Your task to perform on an android device: change keyboard looks Image 0: 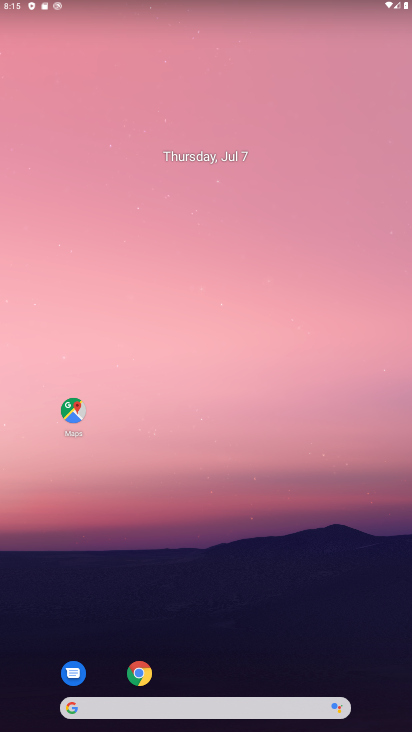
Step 0: drag from (203, 681) to (404, 286)
Your task to perform on an android device: change keyboard looks Image 1: 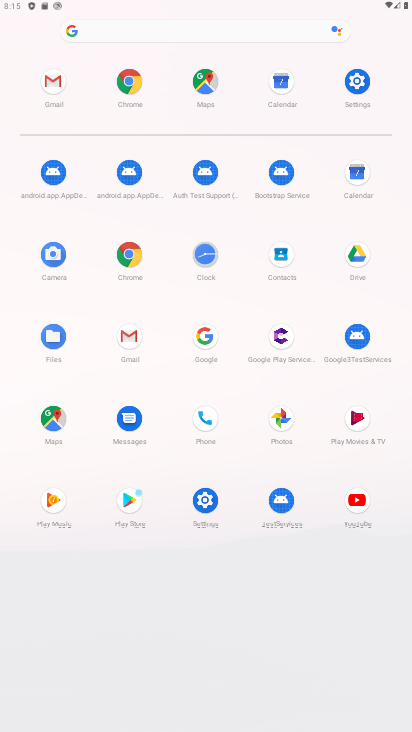
Step 1: click (207, 514)
Your task to perform on an android device: change keyboard looks Image 2: 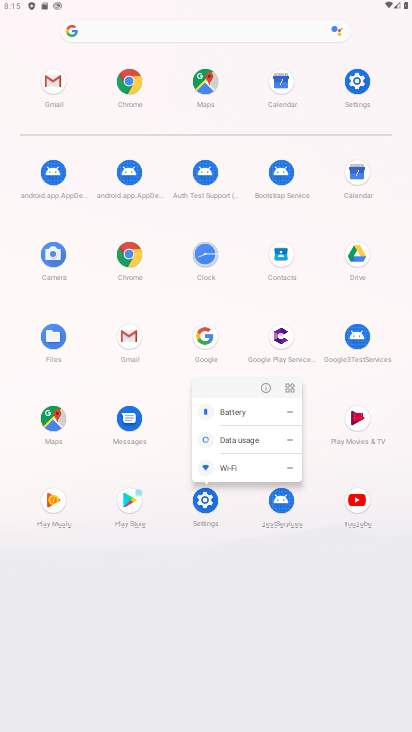
Step 2: click (207, 505)
Your task to perform on an android device: change keyboard looks Image 3: 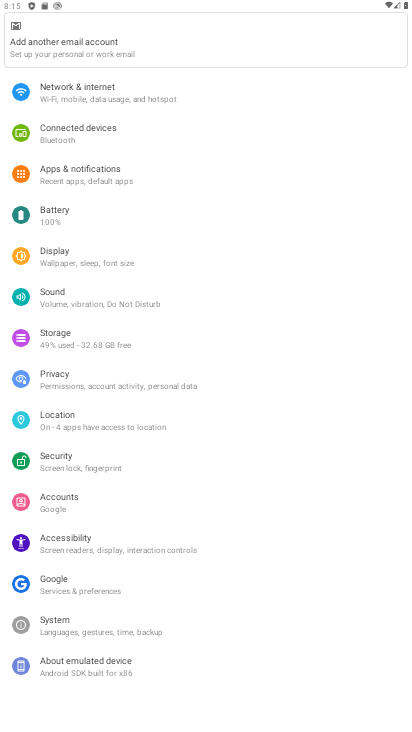
Step 3: click (95, 625)
Your task to perform on an android device: change keyboard looks Image 4: 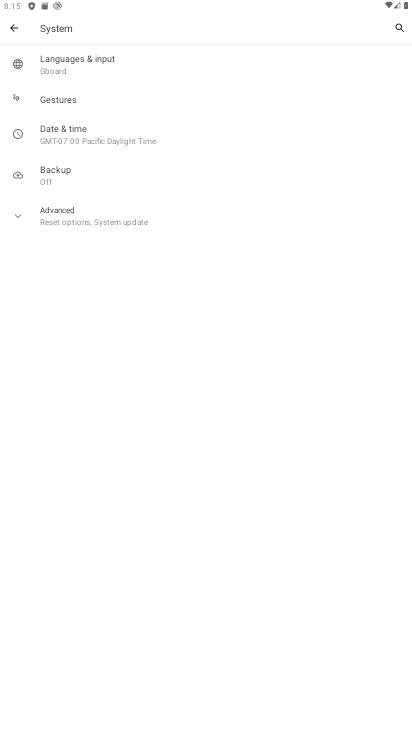
Step 4: click (55, 65)
Your task to perform on an android device: change keyboard looks Image 5: 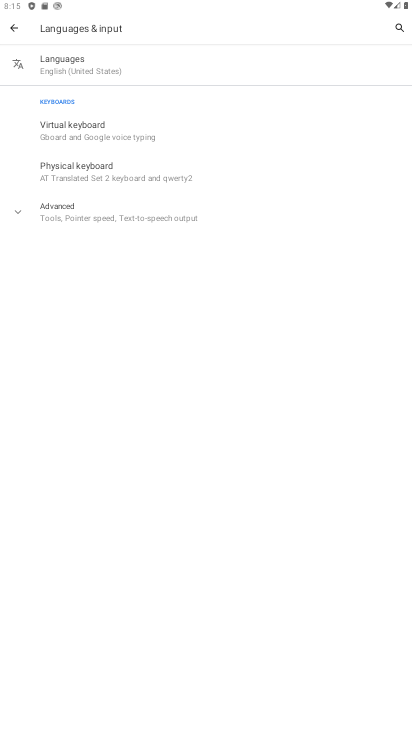
Step 5: click (88, 123)
Your task to perform on an android device: change keyboard looks Image 6: 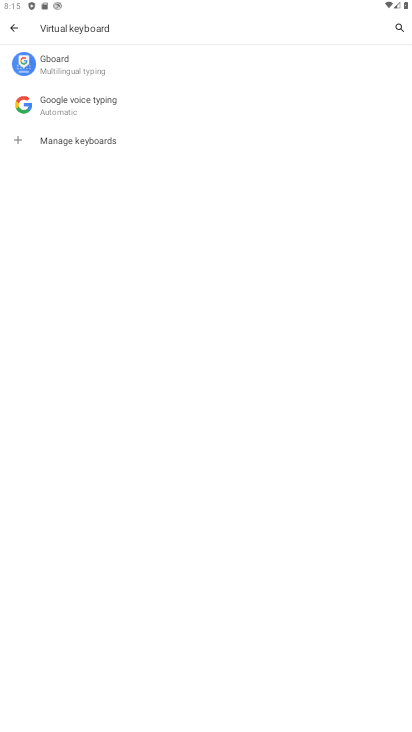
Step 6: click (70, 67)
Your task to perform on an android device: change keyboard looks Image 7: 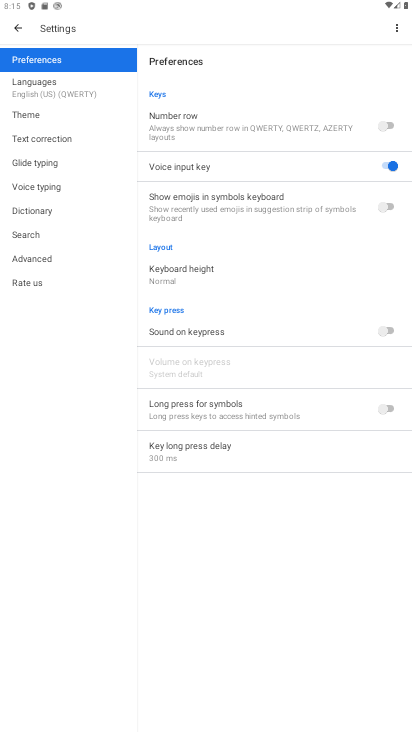
Step 7: click (27, 111)
Your task to perform on an android device: change keyboard looks Image 8: 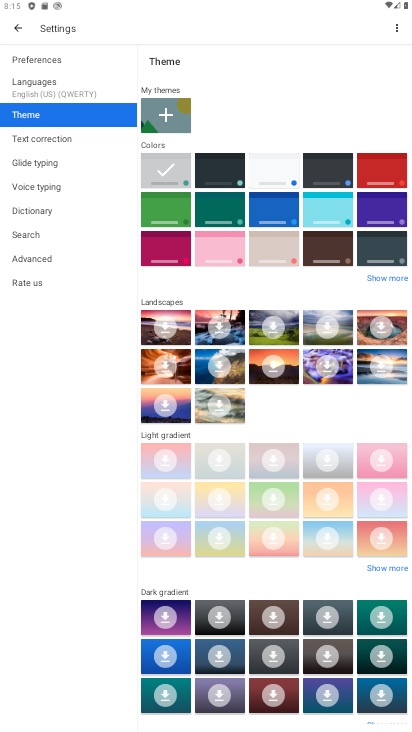
Step 8: click (215, 176)
Your task to perform on an android device: change keyboard looks Image 9: 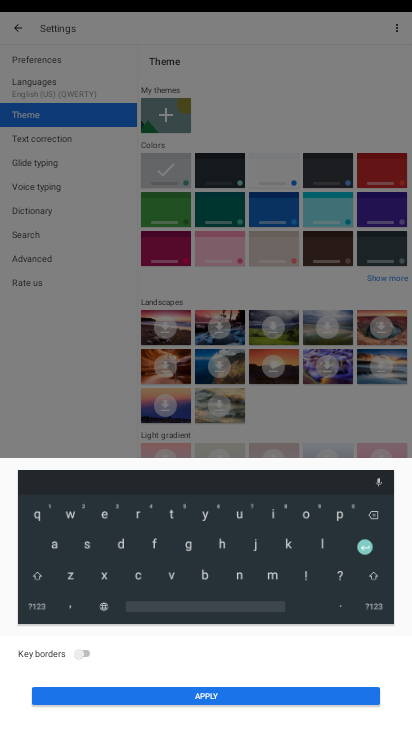
Step 9: click (151, 689)
Your task to perform on an android device: change keyboard looks Image 10: 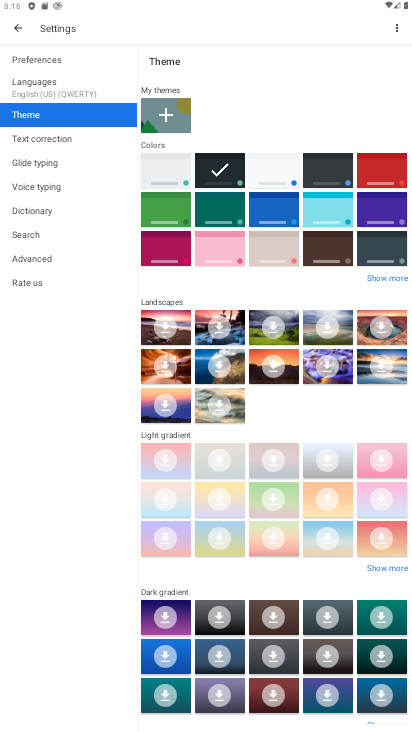
Step 10: task complete